Your task to perform on an android device: Open the map Image 0: 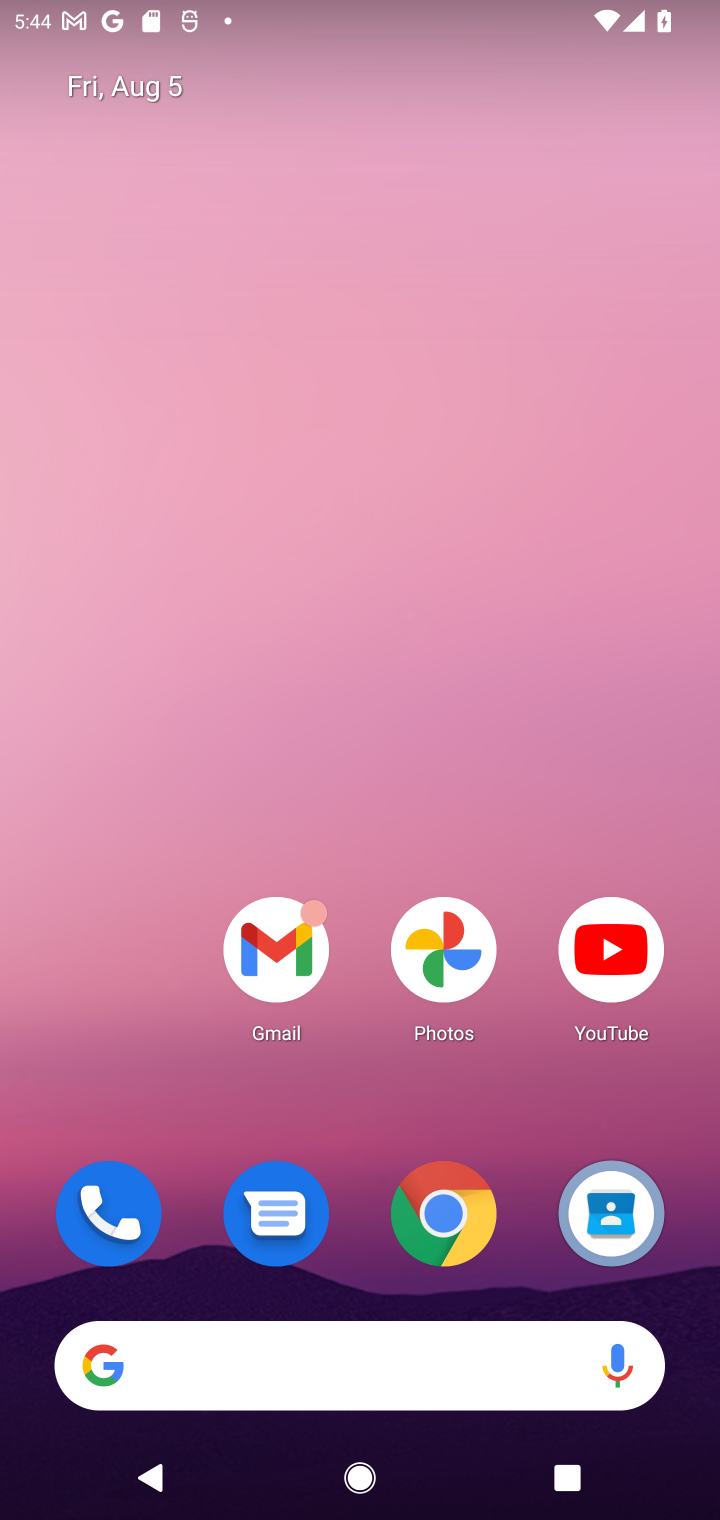
Step 0: drag from (354, 1295) to (342, 286)
Your task to perform on an android device: Open the map Image 1: 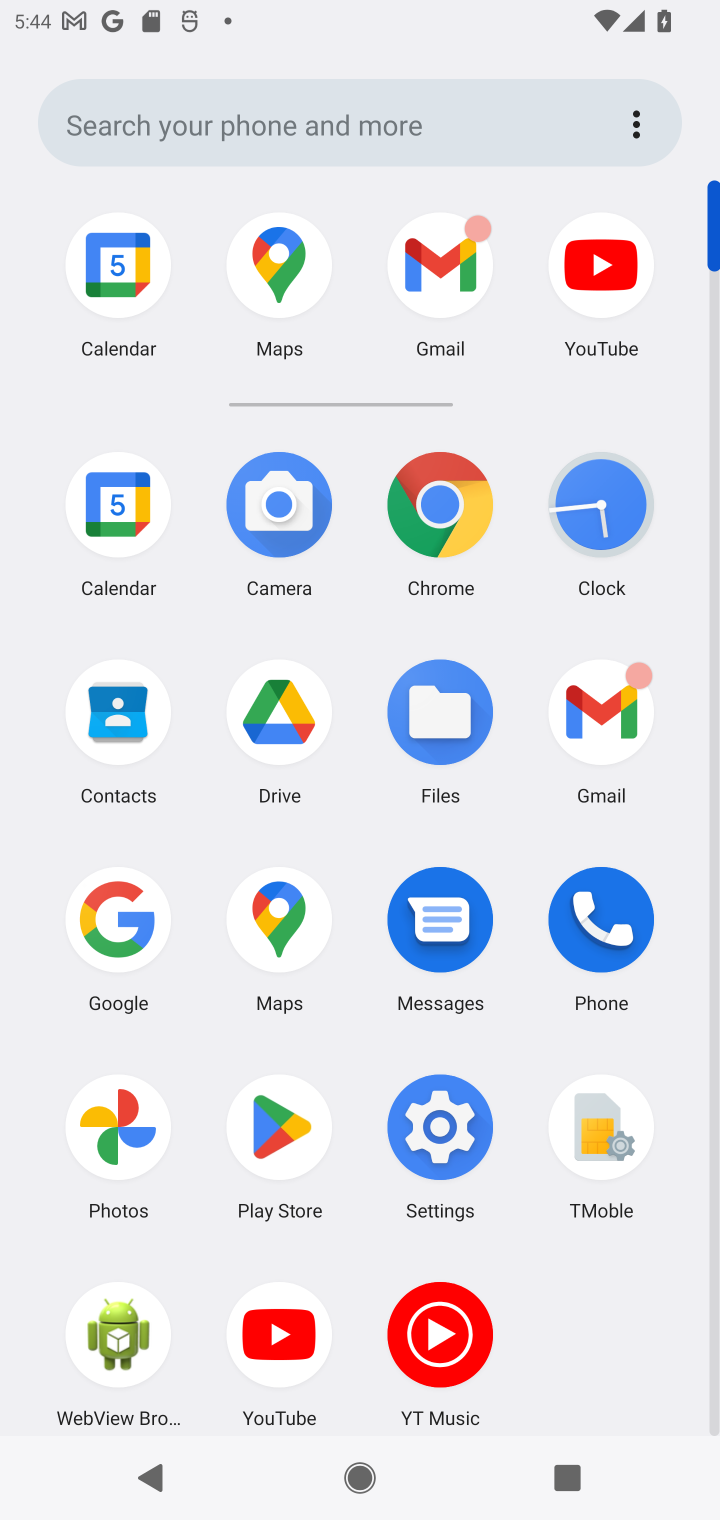
Step 1: click (282, 227)
Your task to perform on an android device: Open the map Image 2: 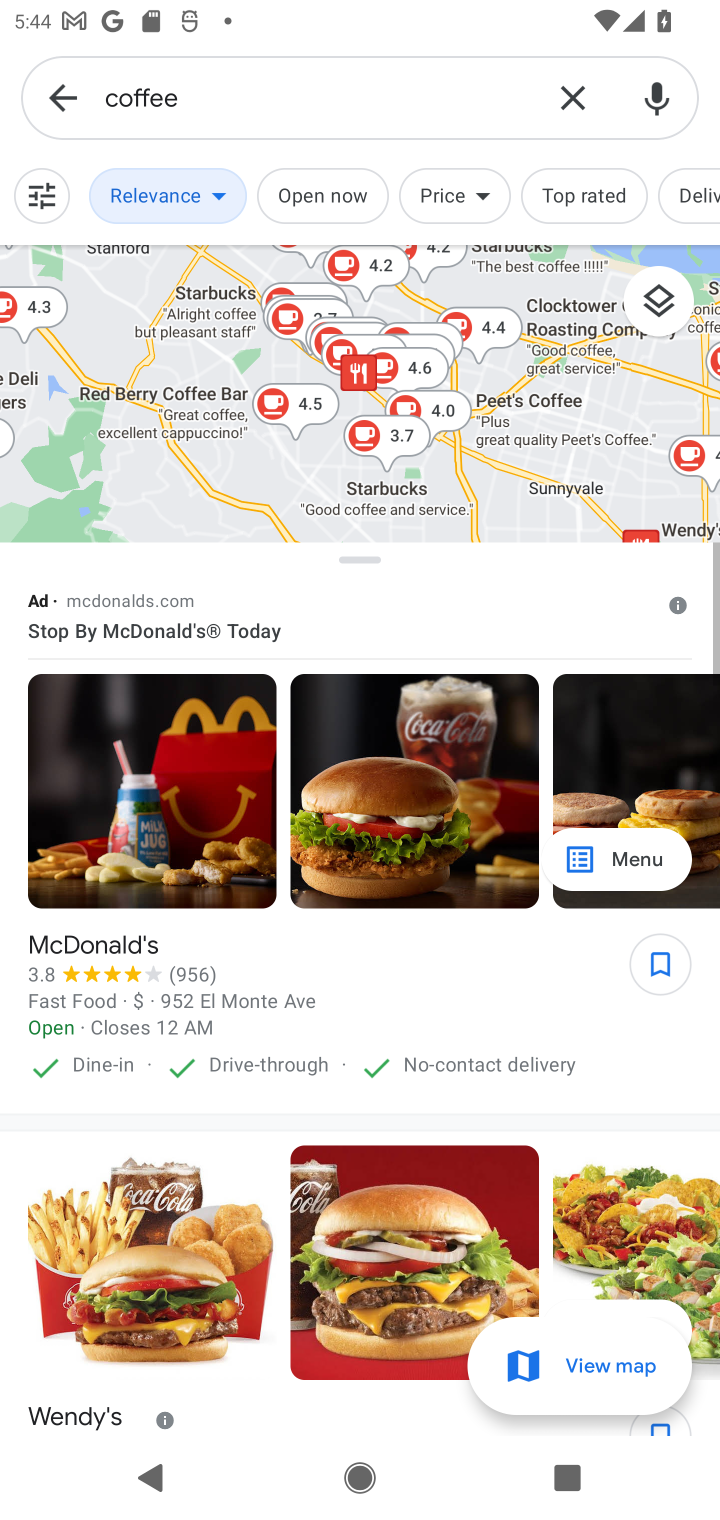
Step 2: task complete